Your task to perform on an android device: change the clock display to digital Image 0: 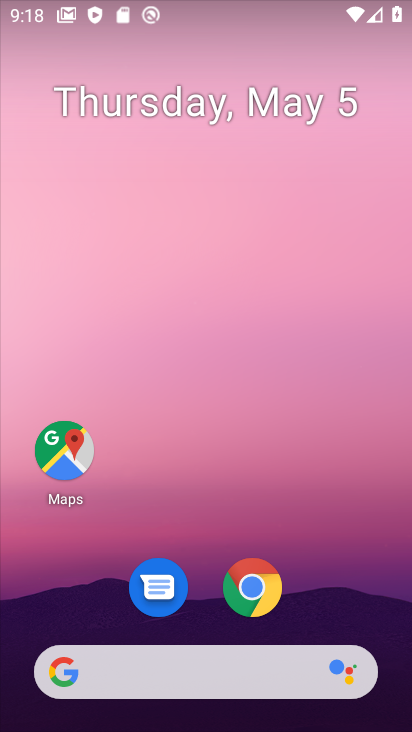
Step 0: drag from (328, 615) to (327, 238)
Your task to perform on an android device: change the clock display to digital Image 1: 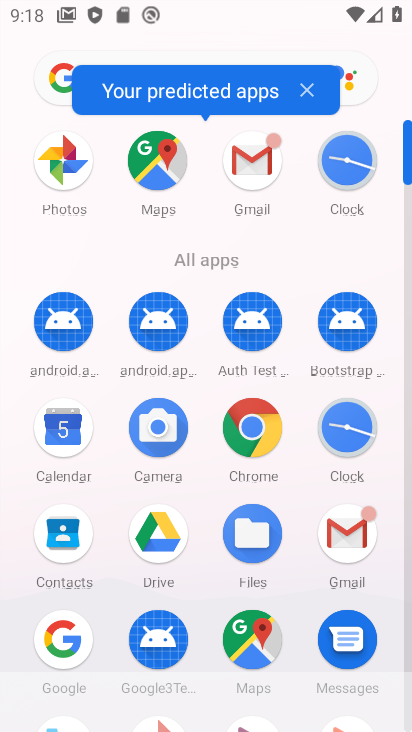
Step 1: click (345, 429)
Your task to perform on an android device: change the clock display to digital Image 2: 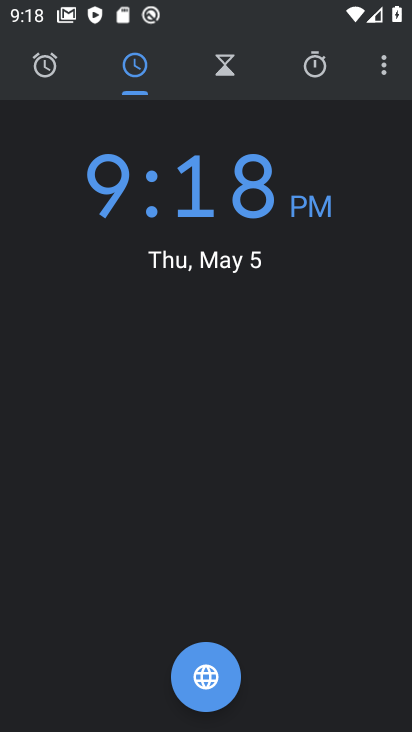
Step 2: click (377, 71)
Your task to perform on an android device: change the clock display to digital Image 3: 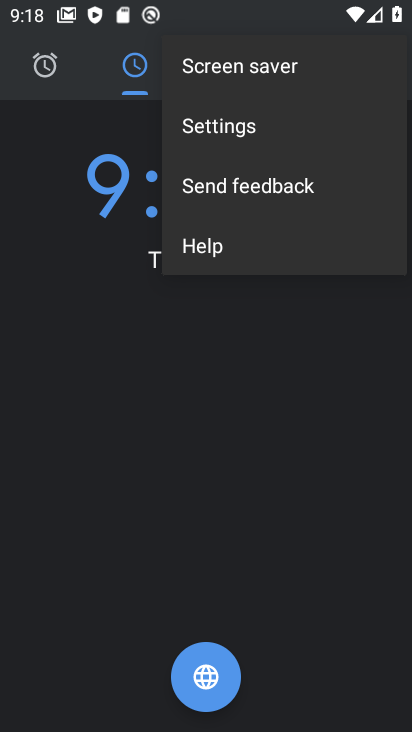
Step 3: click (270, 121)
Your task to perform on an android device: change the clock display to digital Image 4: 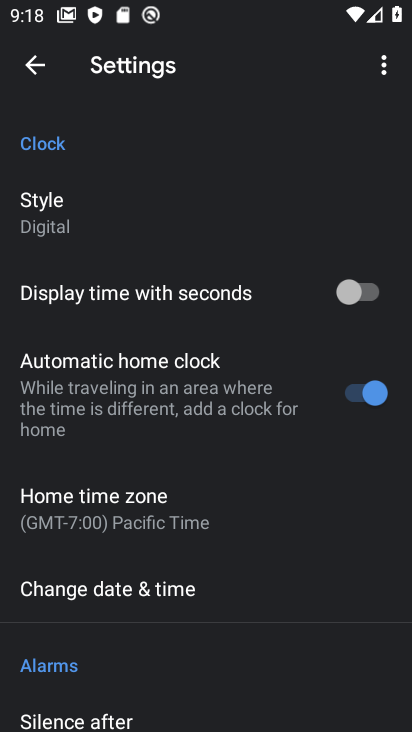
Step 4: click (43, 219)
Your task to perform on an android device: change the clock display to digital Image 5: 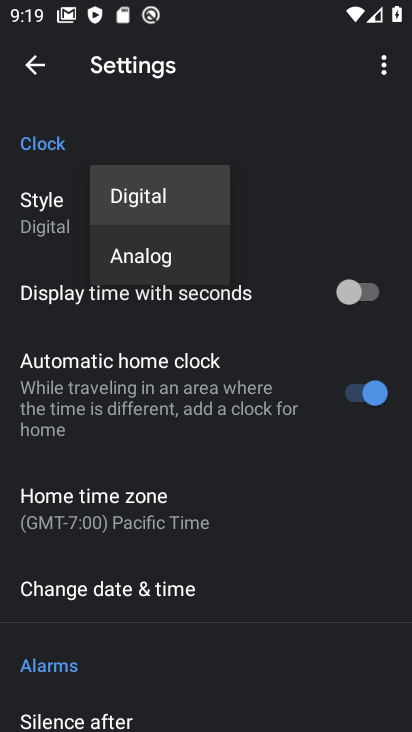
Step 5: task complete